Your task to perform on an android device: check out phone information Image 0: 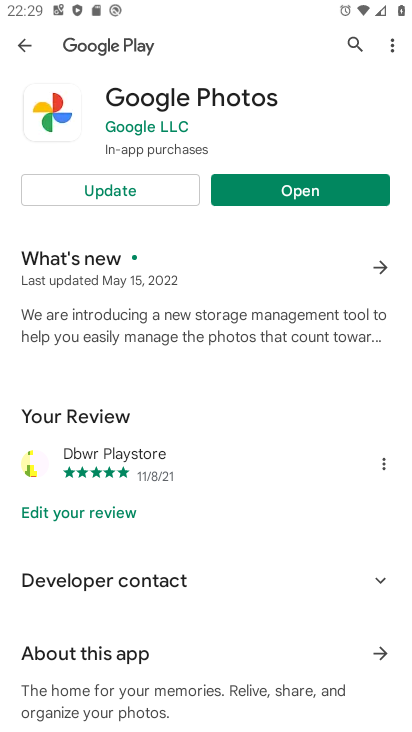
Step 0: press home button
Your task to perform on an android device: check out phone information Image 1: 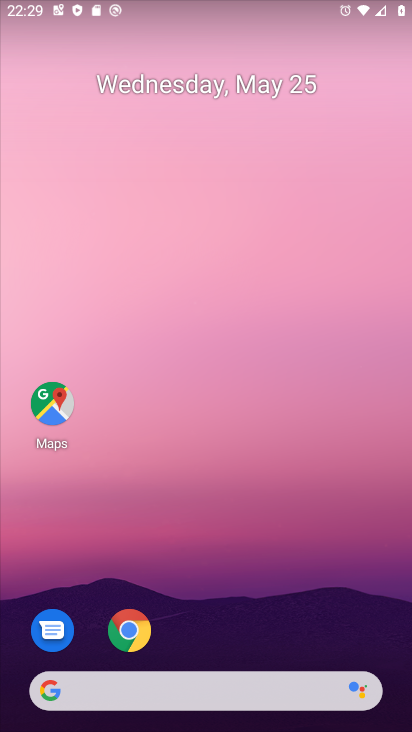
Step 1: drag from (229, 633) to (218, 174)
Your task to perform on an android device: check out phone information Image 2: 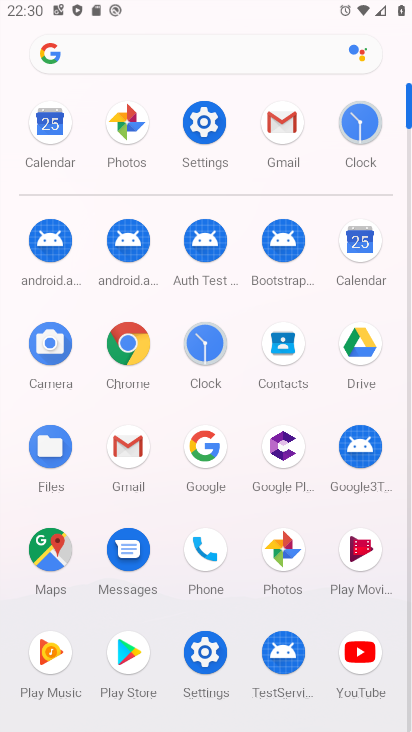
Step 2: click (198, 148)
Your task to perform on an android device: check out phone information Image 3: 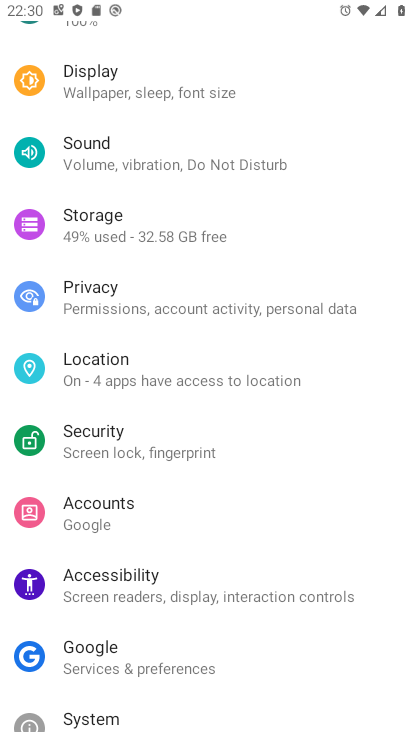
Step 3: drag from (226, 648) to (241, 188)
Your task to perform on an android device: check out phone information Image 4: 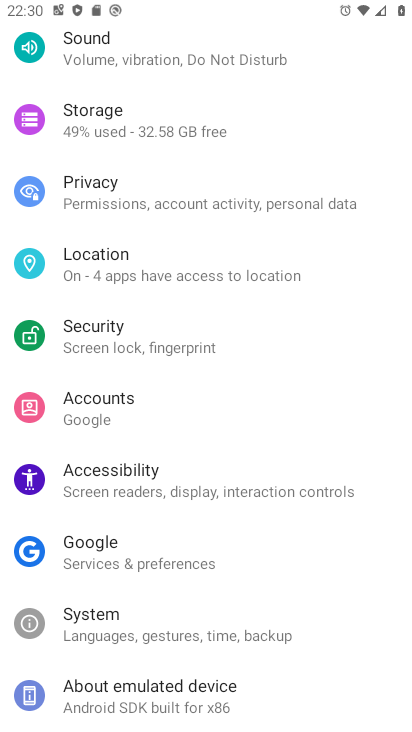
Step 4: drag from (244, 634) to (253, 233)
Your task to perform on an android device: check out phone information Image 5: 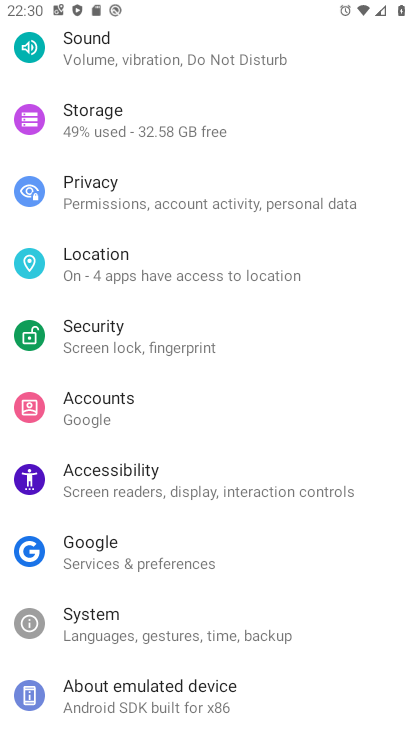
Step 5: click (235, 709)
Your task to perform on an android device: check out phone information Image 6: 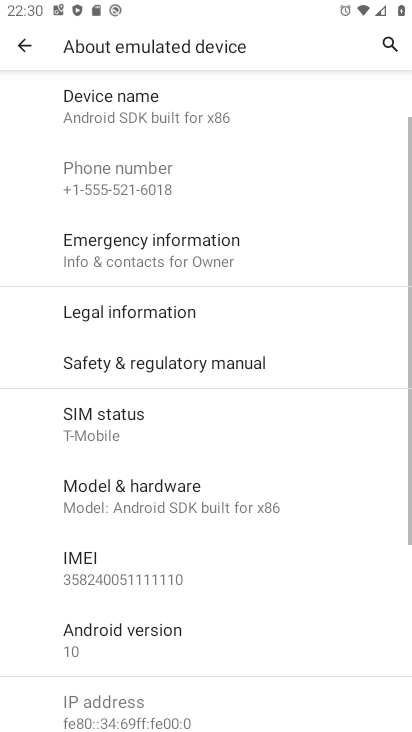
Step 6: task complete